Your task to perform on an android device: install app "Spotify" Image 0: 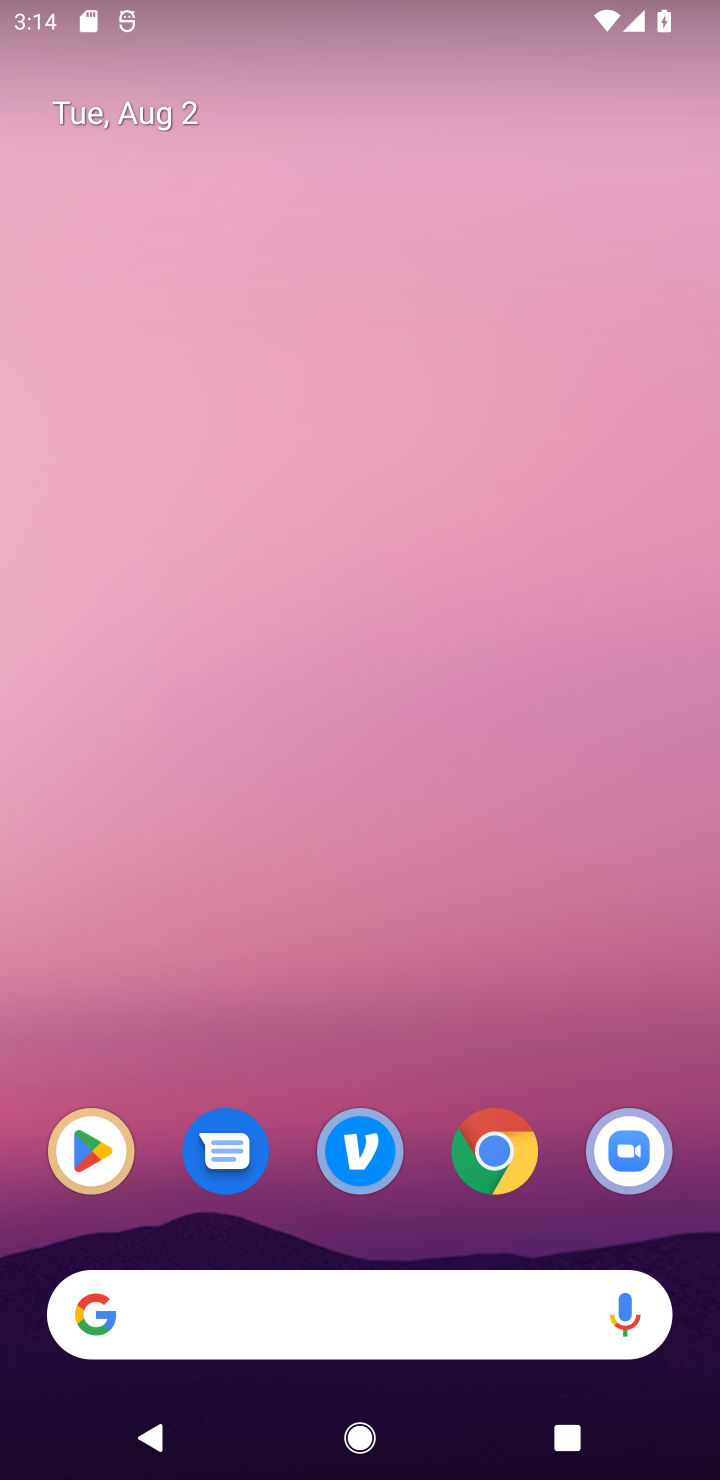
Step 0: drag from (374, 1030) to (331, 165)
Your task to perform on an android device: install app "Spotify" Image 1: 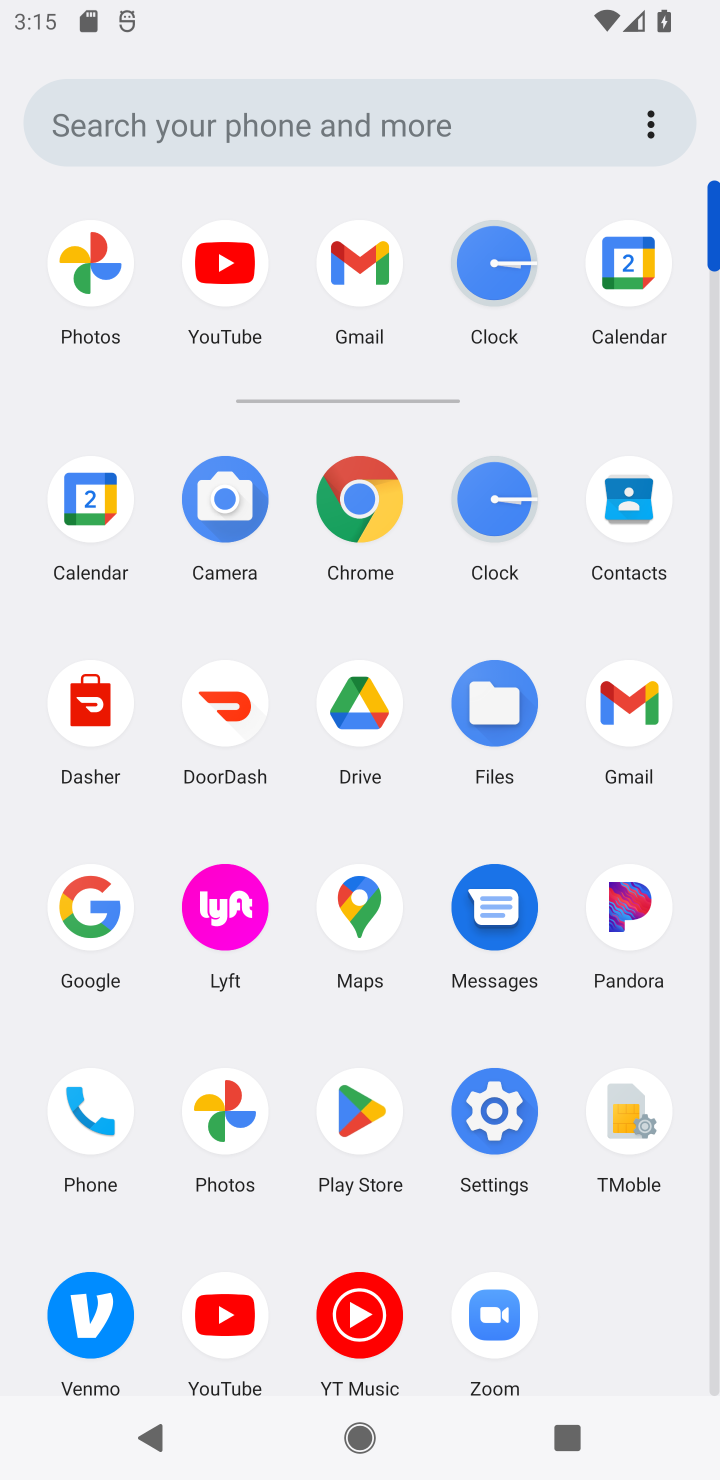
Step 1: click (335, 1122)
Your task to perform on an android device: install app "Spotify" Image 2: 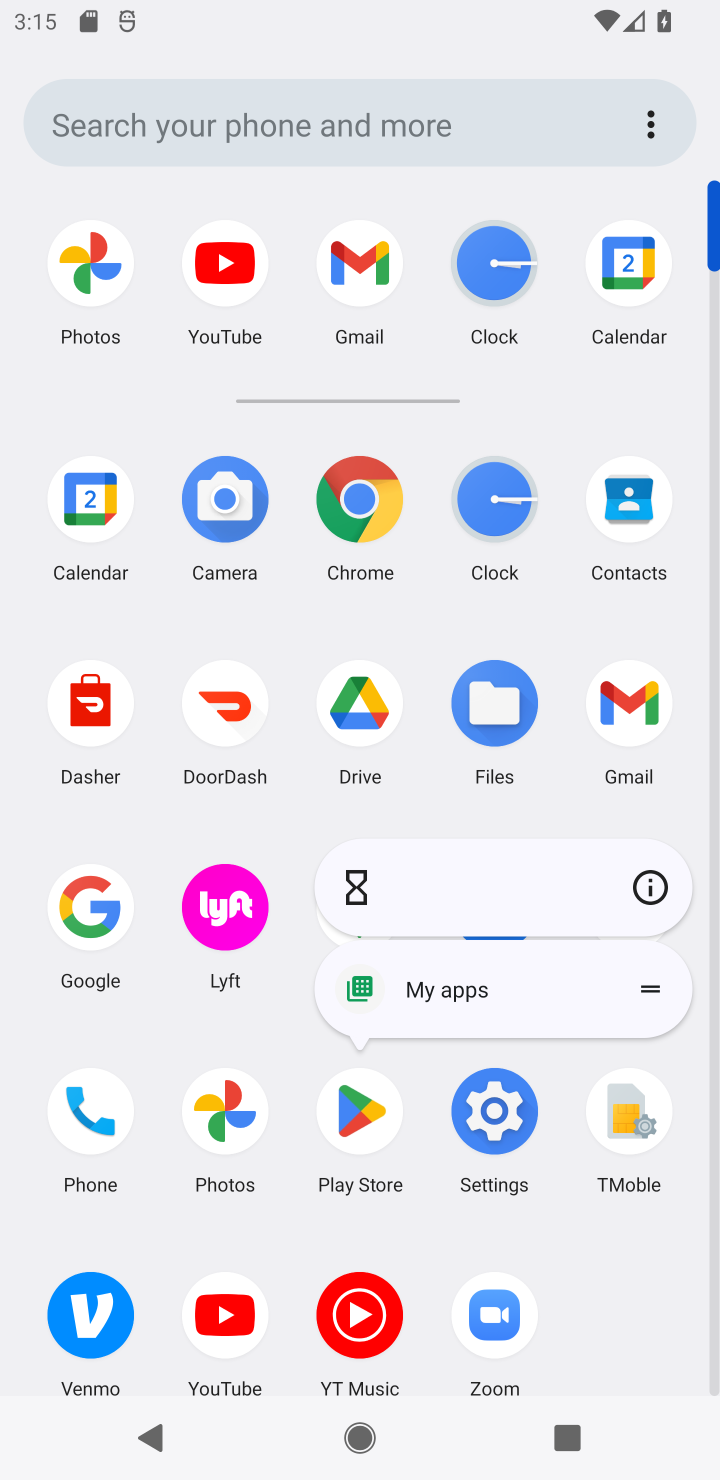
Step 2: click (337, 1121)
Your task to perform on an android device: install app "Spotify" Image 3: 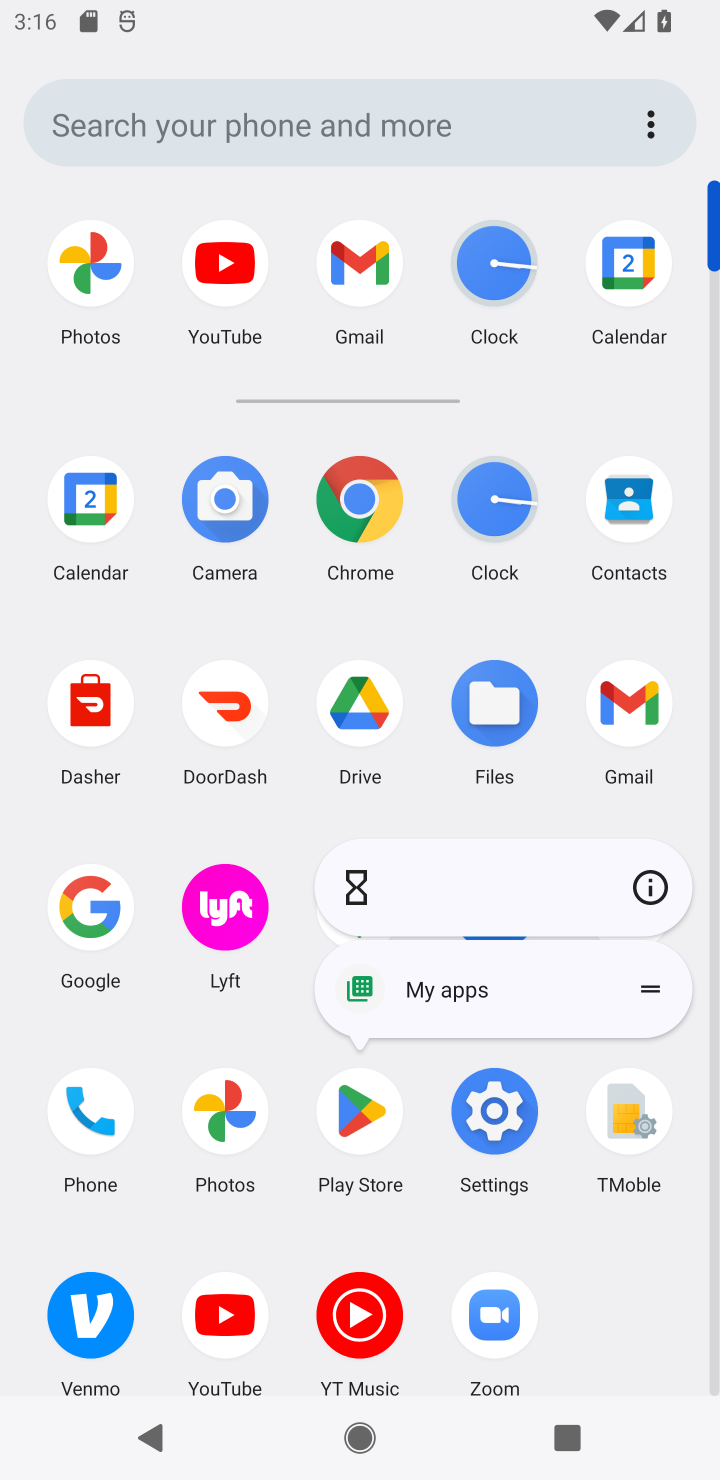
Step 3: click (365, 1154)
Your task to perform on an android device: install app "Spotify" Image 4: 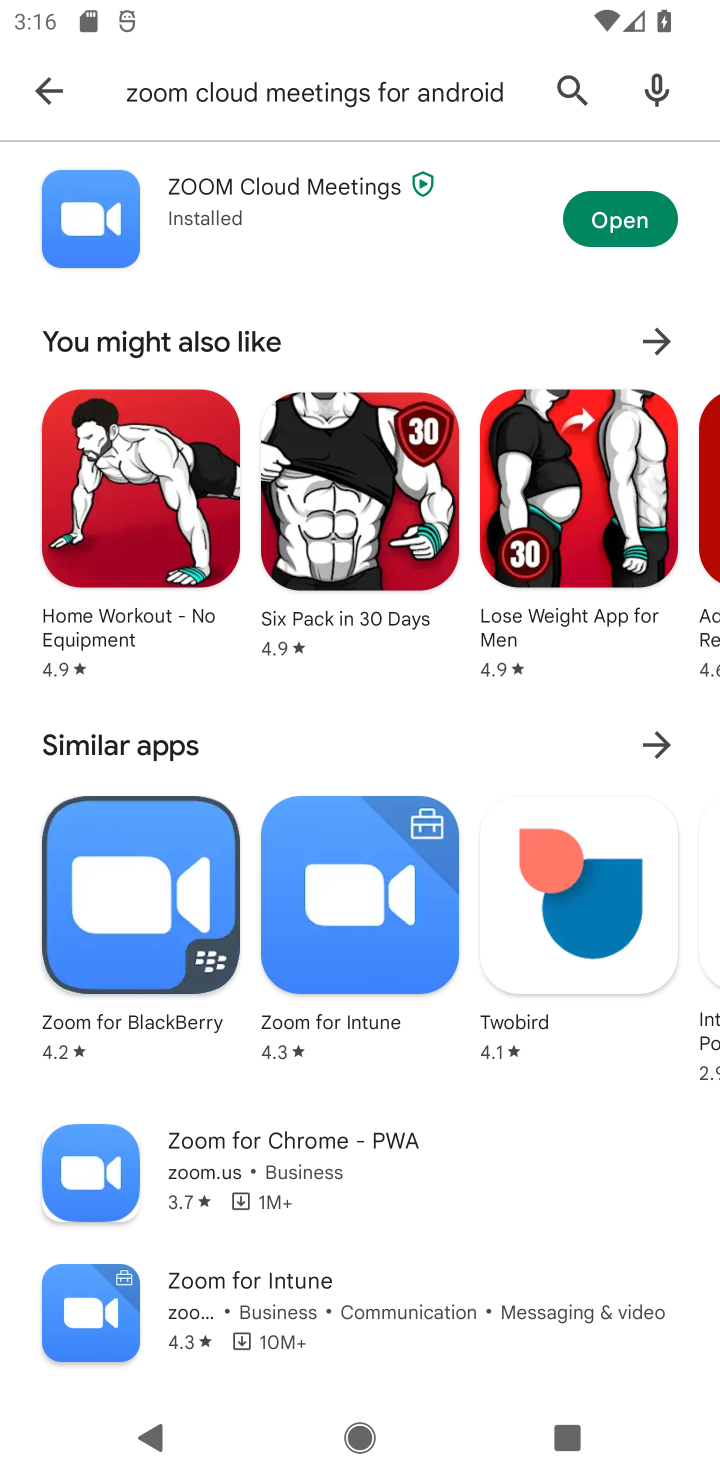
Step 4: click (38, 81)
Your task to perform on an android device: install app "Spotify" Image 5: 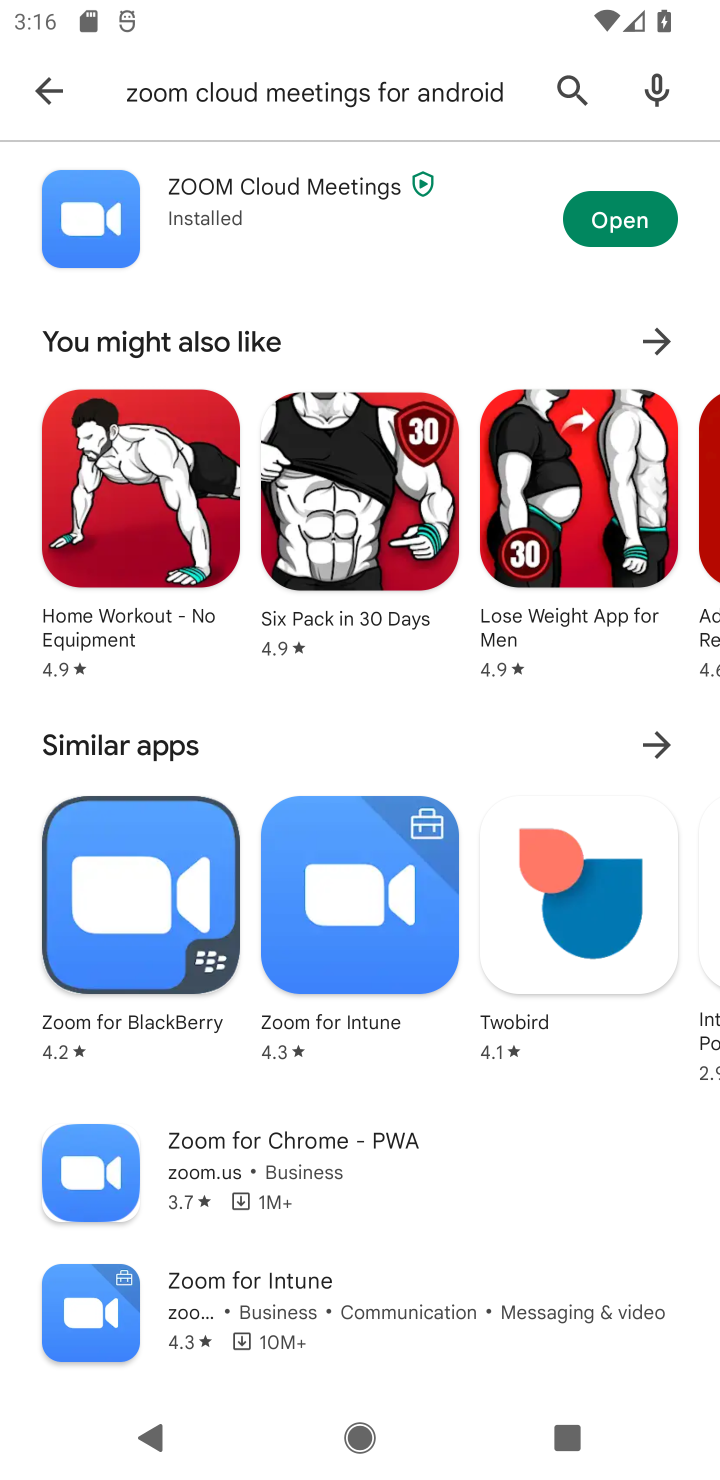
Step 5: click (46, 92)
Your task to perform on an android device: install app "Spotify" Image 6: 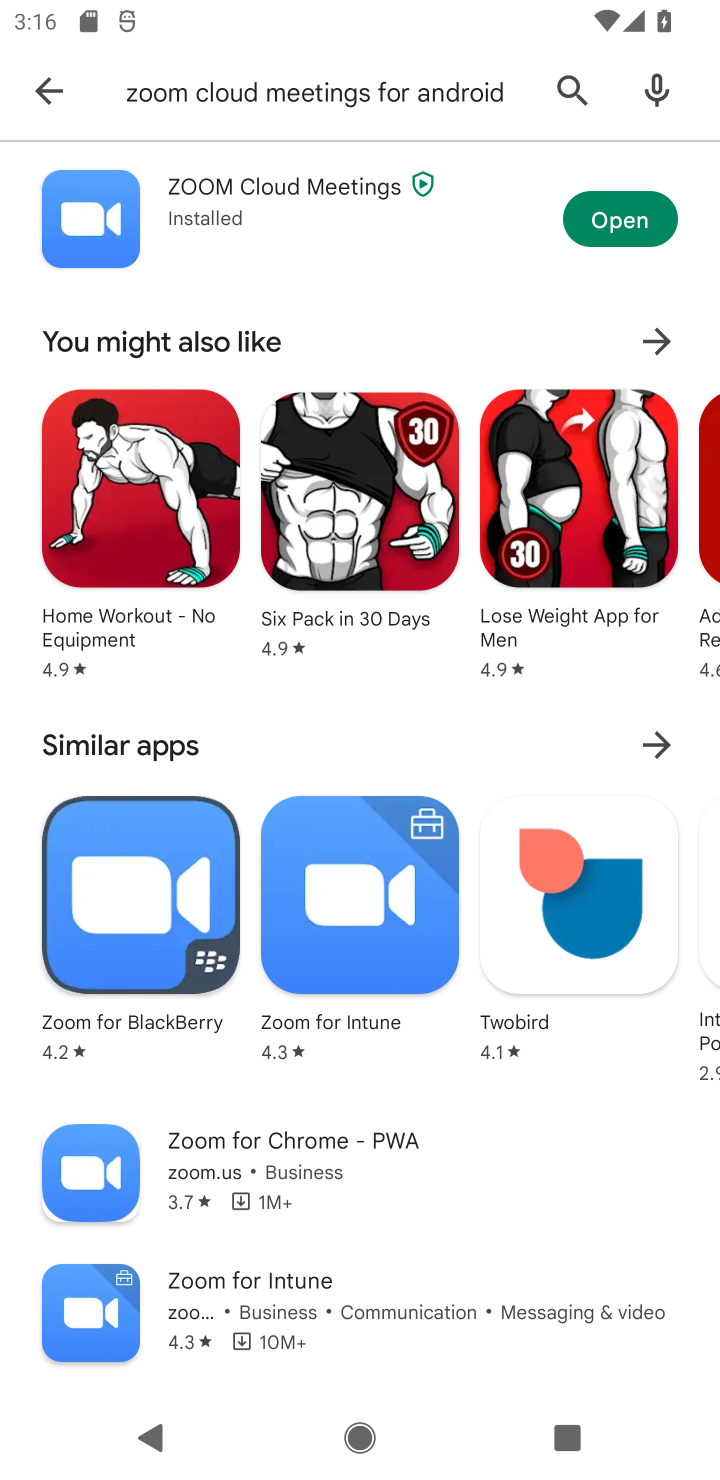
Step 6: click (46, 92)
Your task to perform on an android device: install app "Spotify" Image 7: 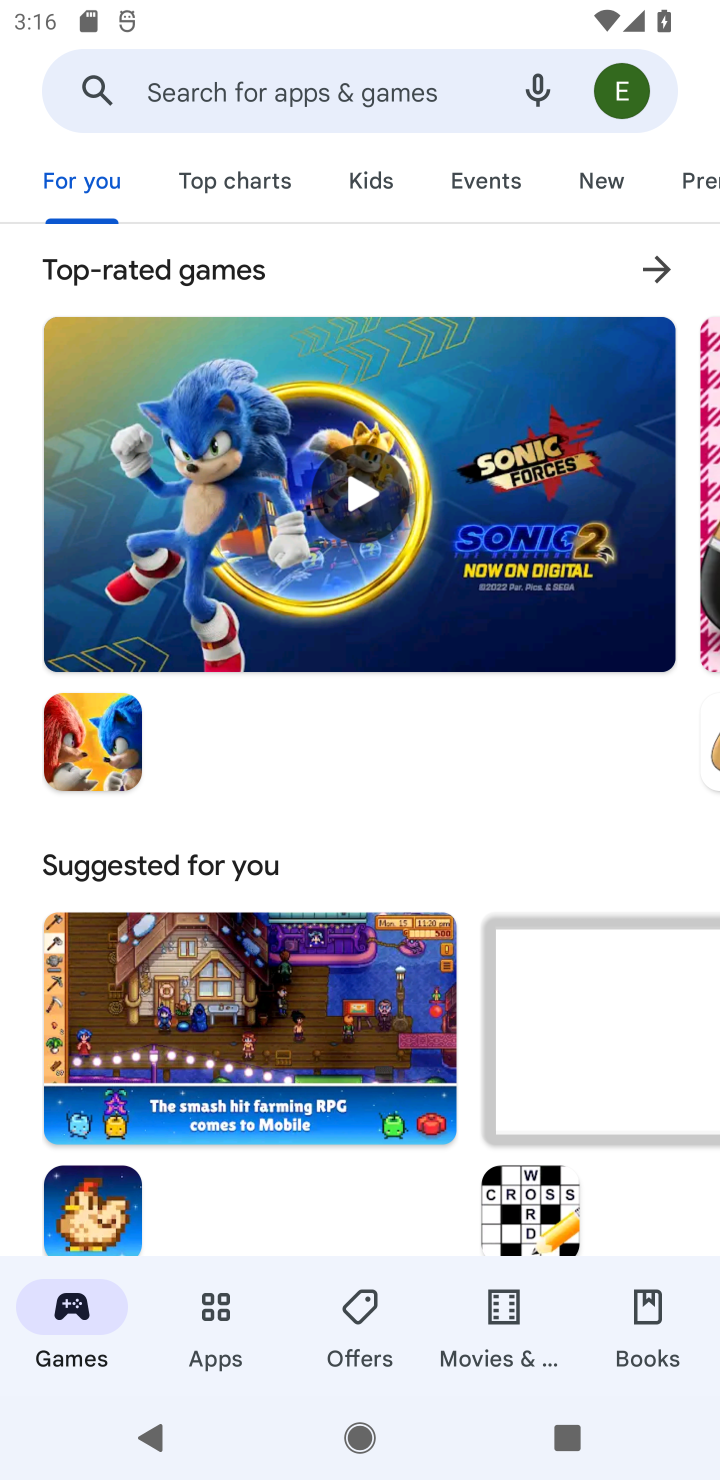
Step 7: click (250, 91)
Your task to perform on an android device: install app "Spotify" Image 8: 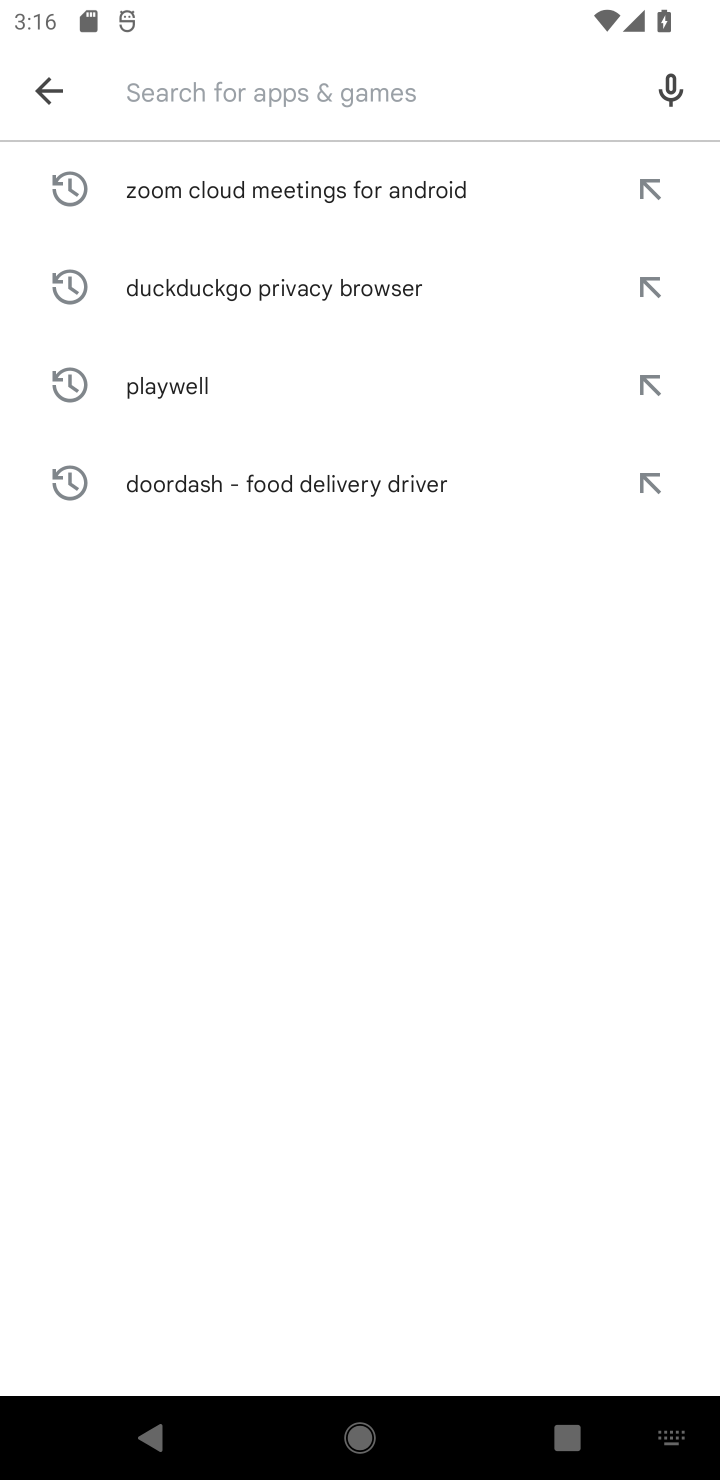
Step 8: type "Spotify"
Your task to perform on an android device: install app "Spotify" Image 9: 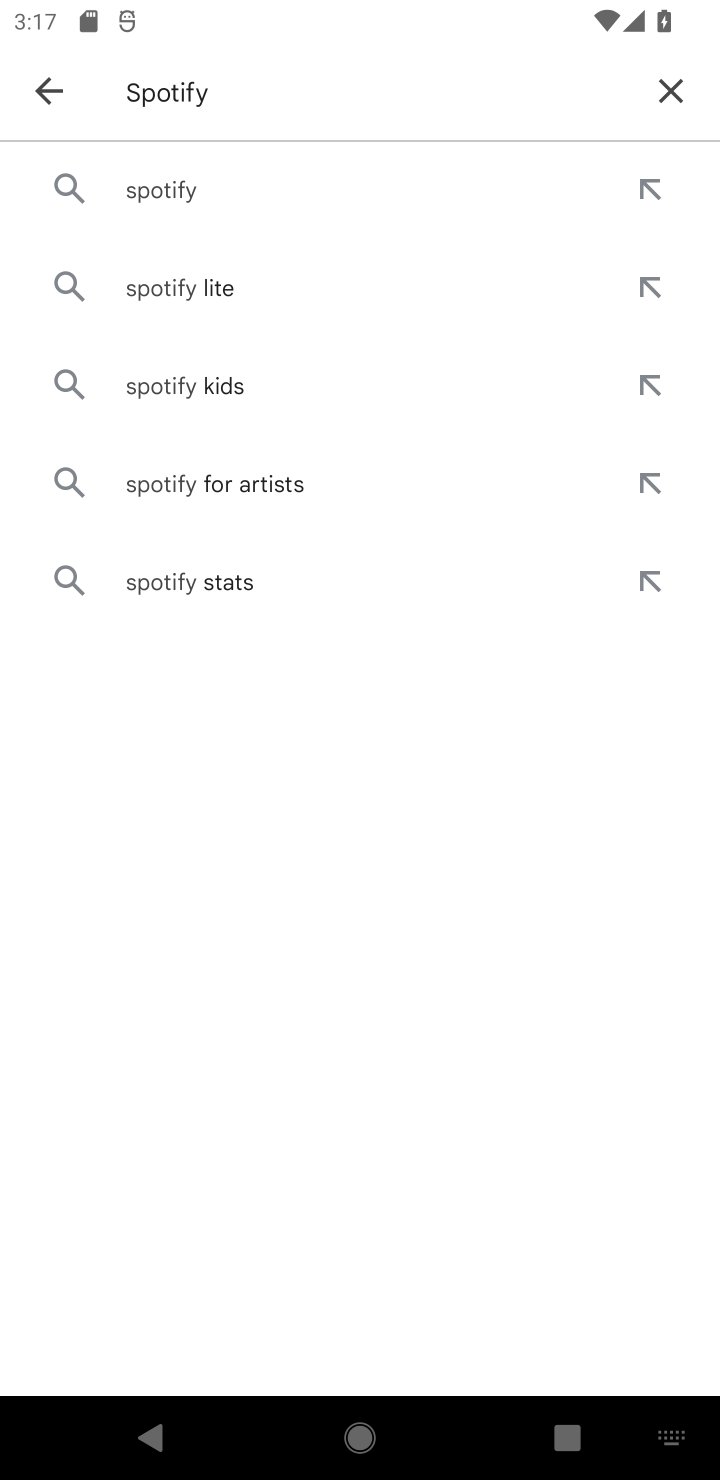
Step 9: click (200, 185)
Your task to perform on an android device: install app "Spotify" Image 10: 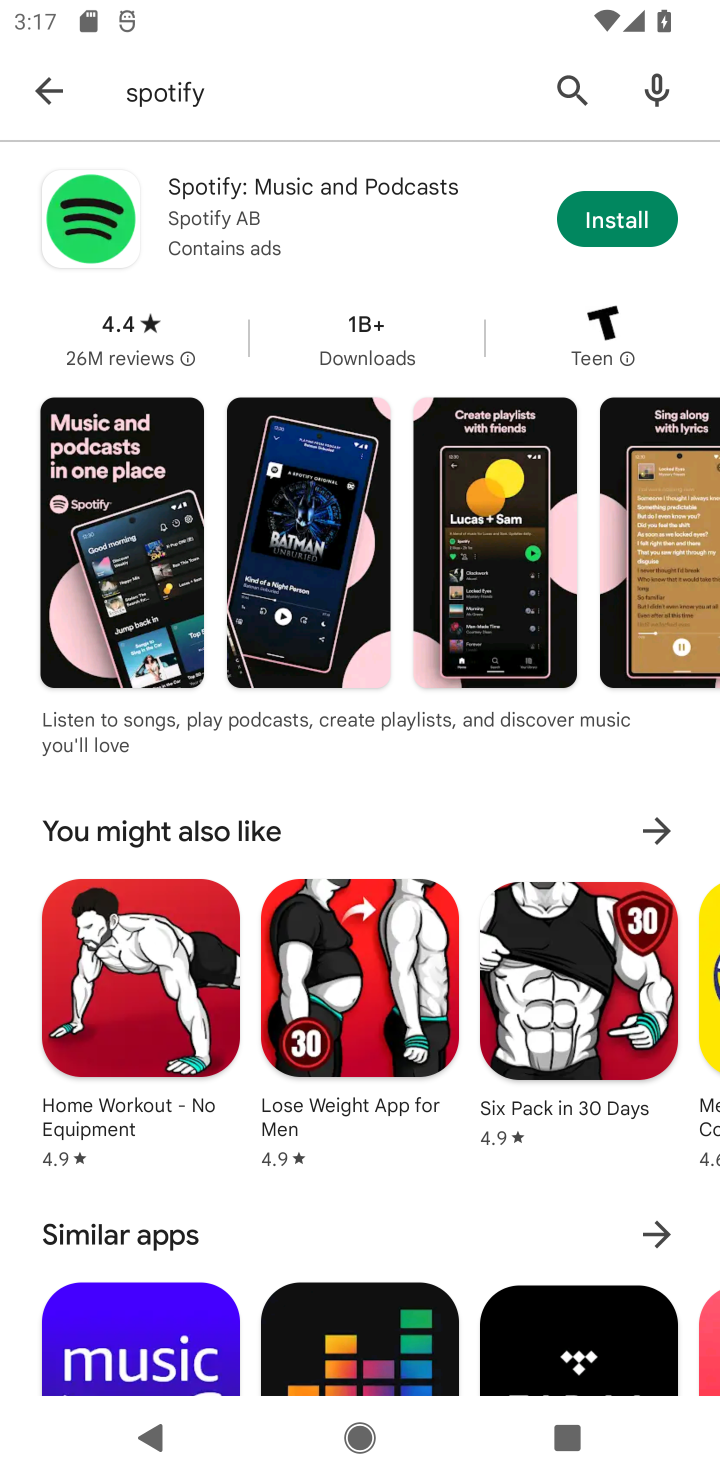
Step 10: click (613, 223)
Your task to perform on an android device: install app "Spotify" Image 11: 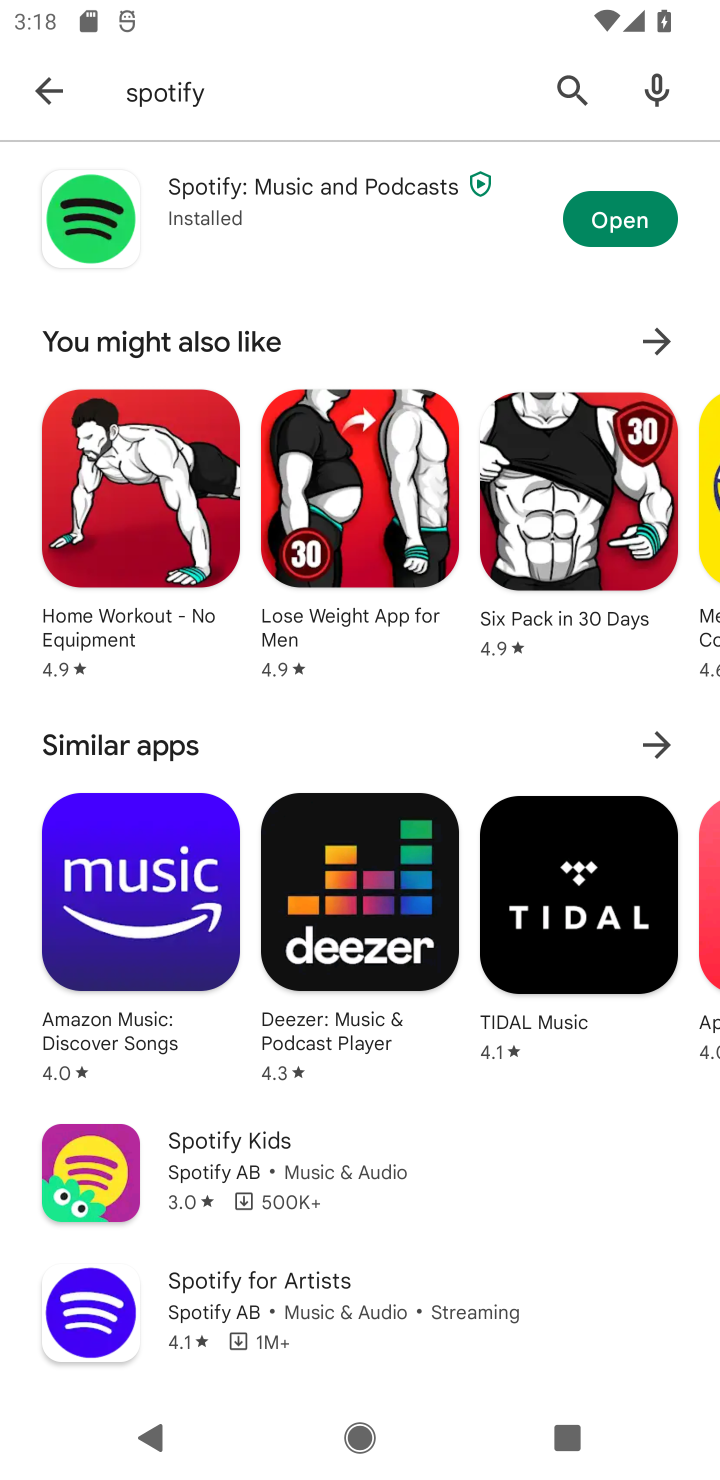
Step 11: task complete